Your task to perform on an android device: toggle show notifications on the lock screen Image 0: 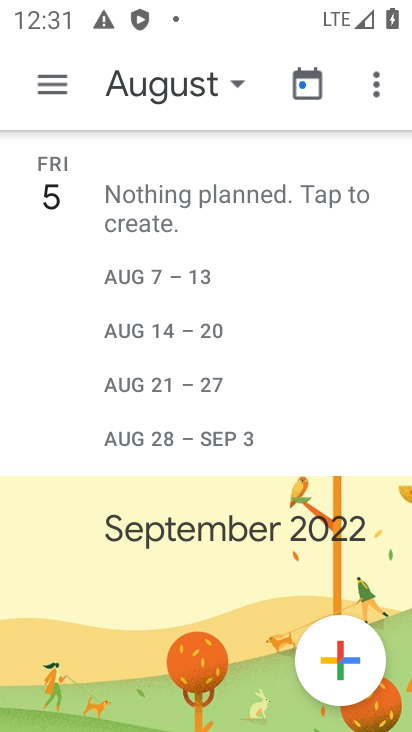
Step 0: press back button
Your task to perform on an android device: toggle show notifications on the lock screen Image 1: 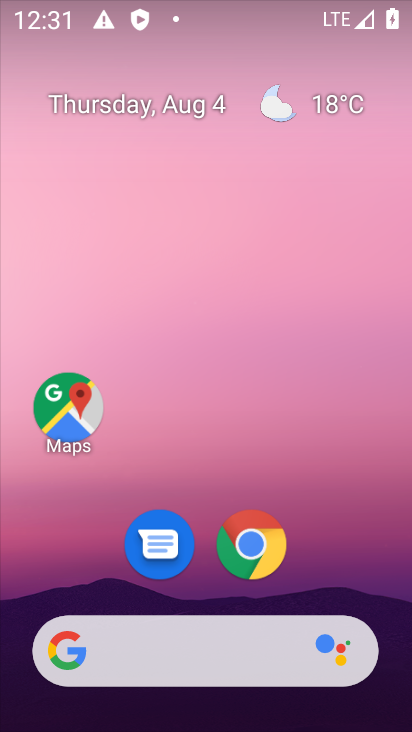
Step 1: drag from (395, 725) to (375, 219)
Your task to perform on an android device: toggle show notifications on the lock screen Image 2: 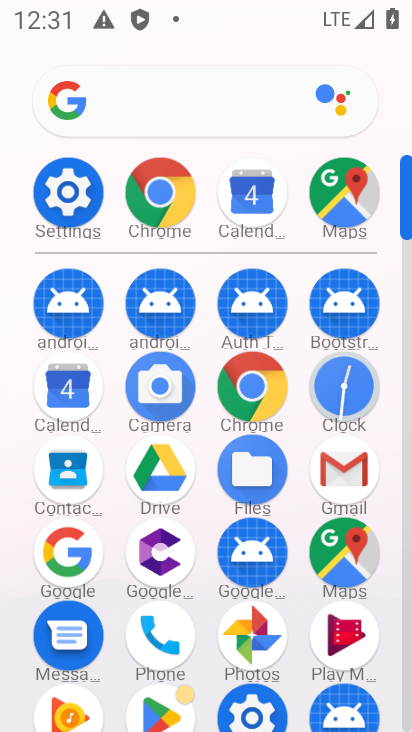
Step 2: click (81, 209)
Your task to perform on an android device: toggle show notifications on the lock screen Image 3: 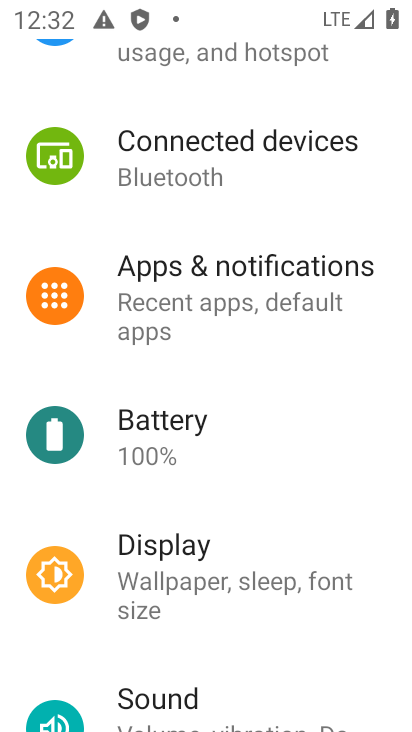
Step 3: click (307, 276)
Your task to perform on an android device: toggle show notifications on the lock screen Image 4: 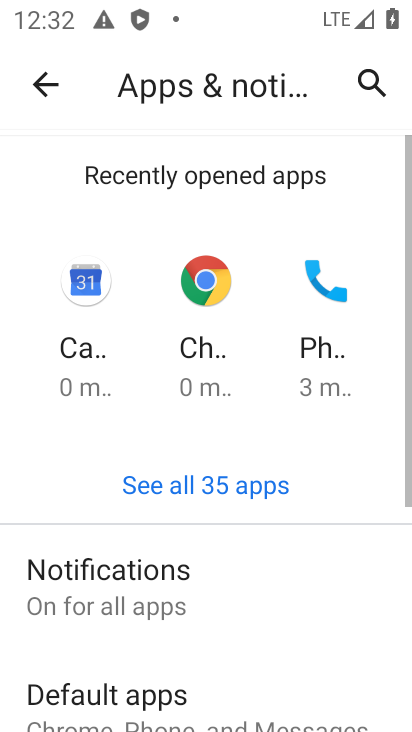
Step 4: click (128, 573)
Your task to perform on an android device: toggle show notifications on the lock screen Image 5: 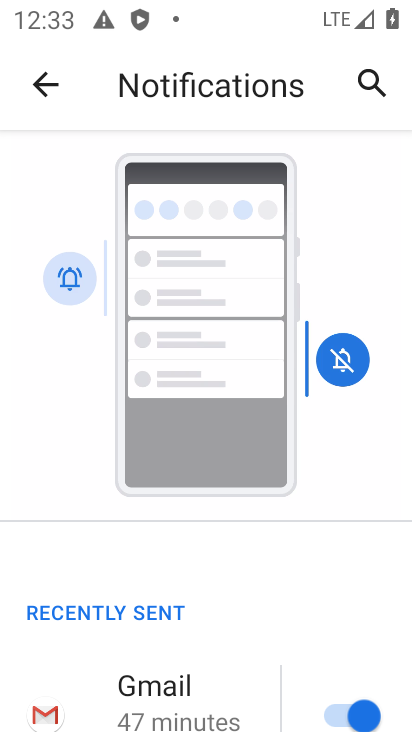
Step 5: drag from (271, 646) to (240, 270)
Your task to perform on an android device: toggle show notifications on the lock screen Image 6: 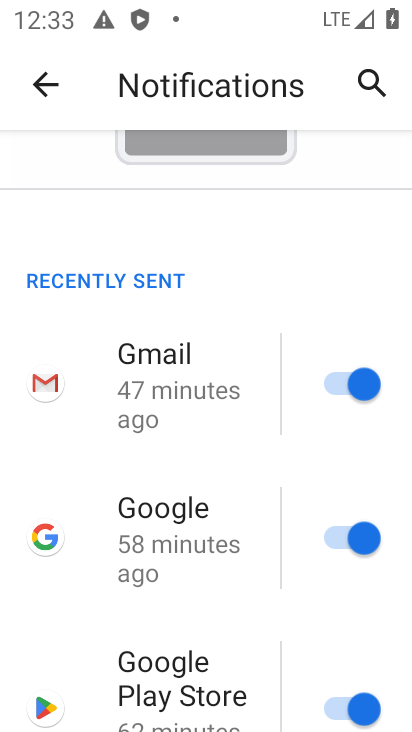
Step 6: drag from (263, 624) to (236, 301)
Your task to perform on an android device: toggle show notifications on the lock screen Image 7: 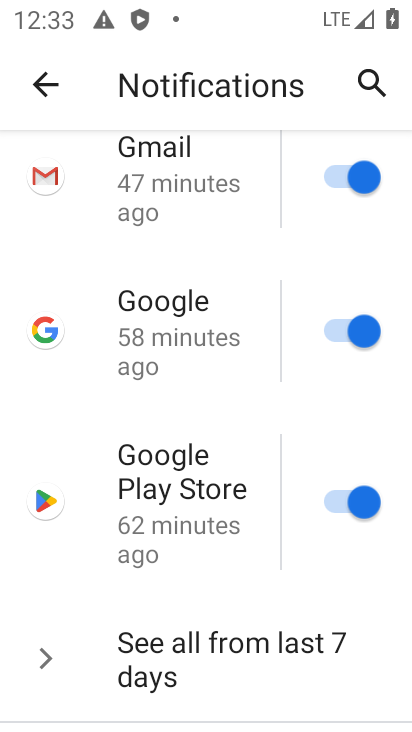
Step 7: drag from (282, 587) to (259, 300)
Your task to perform on an android device: toggle show notifications on the lock screen Image 8: 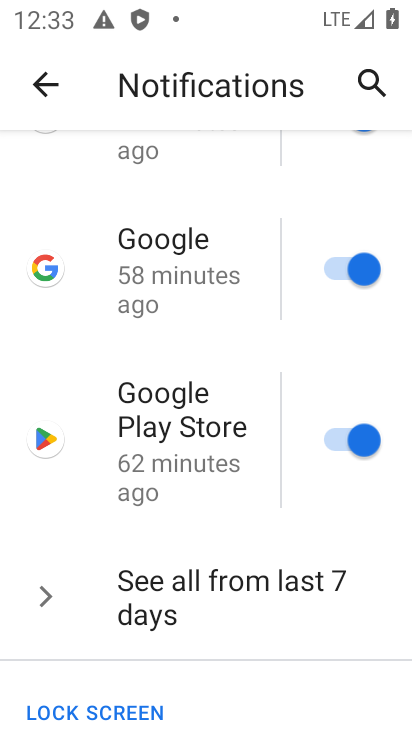
Step 8: drag from (273, 537) to (288, 267)
Your task to perform on an android device: toggle show notifications on the lock screen Image 9: 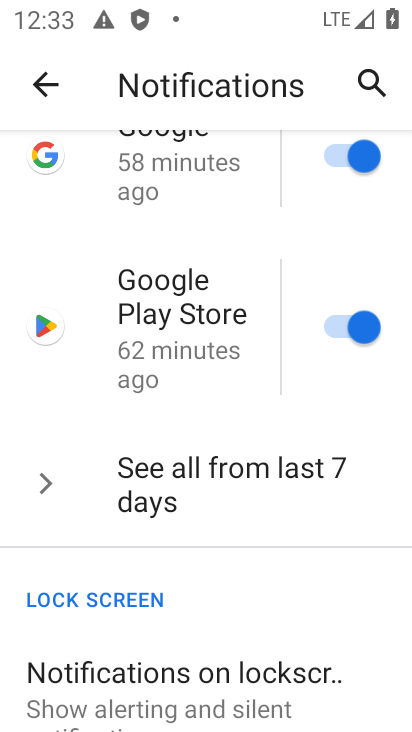
Step 9: click (142, 677)
Your task to perform on an android device: toggle show notifications on the lock screen Image 10: 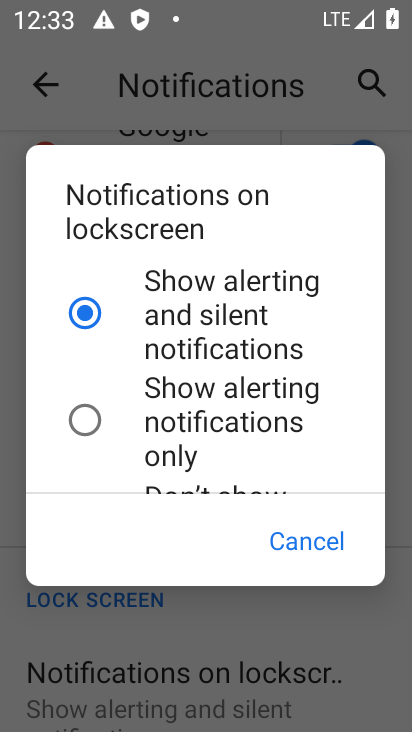
Step 10: click (263, 233)
Your task to perform on an android device: toggle show notifications on the lock screen Image 11: 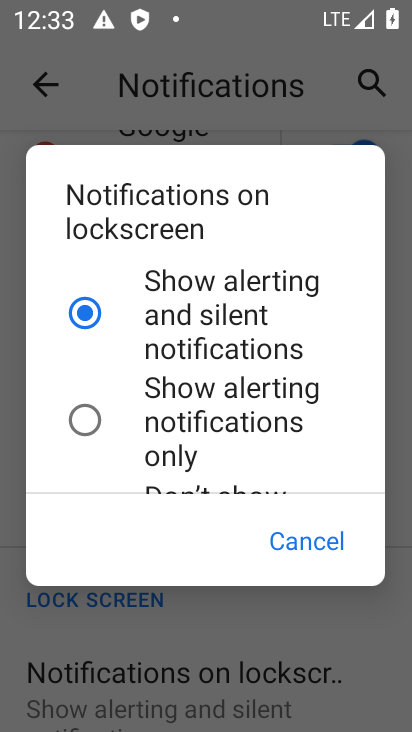
Step 11: click (87, 419)
Your task to perform on an android device: toggle show notifications on the lock screen Image 12: 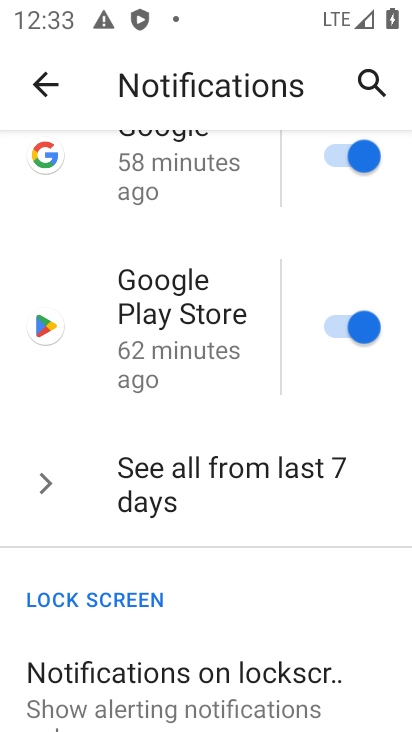
Step 12: task complete